Your task to perform on an android device: Check the weather Image 0: 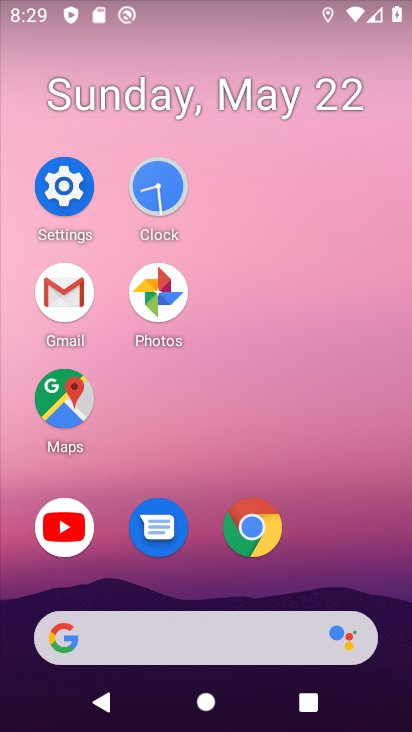
Step 0: drag from (309, 556) to (343, 58)
Your task to perform on an android device: Check the weather Image 1: 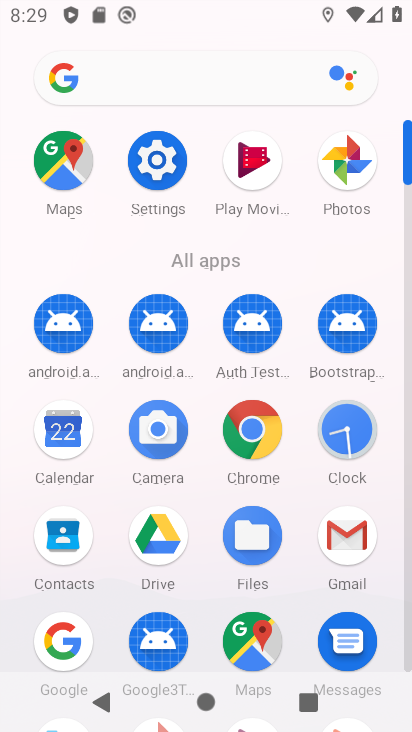
Step 1: drag from (52, 642) to (152, 379)
Your task to perform on an android device: Check the weather Image 2: 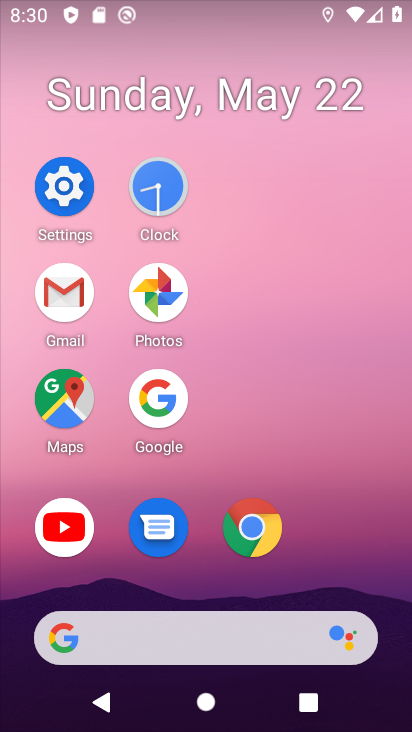
Step 2: click (161, 413)
Your task to perform on an android device: Check the weather Image 3: 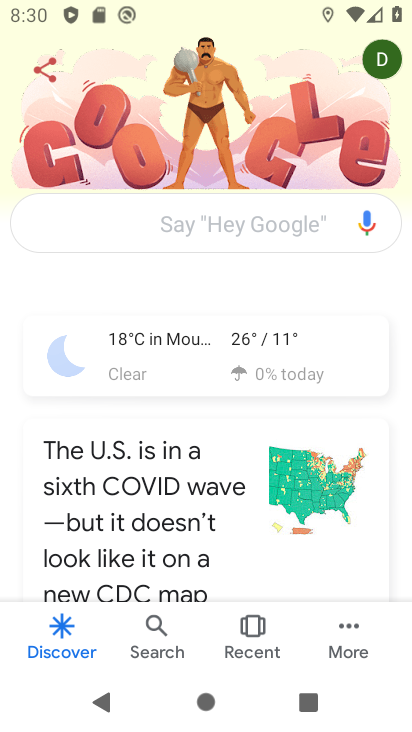
Step 3: click (83, 356)
Your task to perform on an android device: Check the weather Image 4: 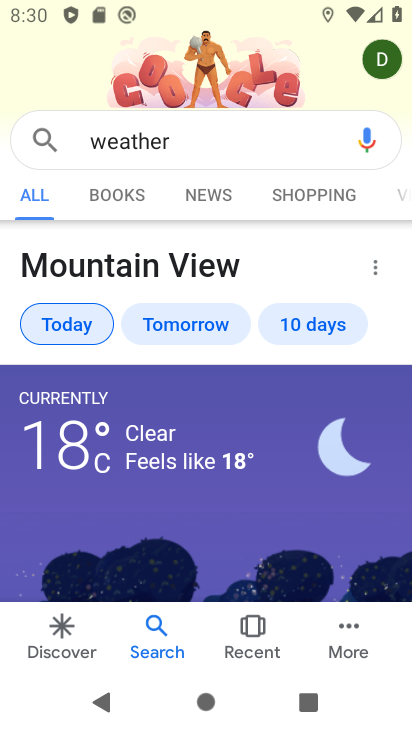
Step 4: task complete